Your task to perform on an android device: Open the stopwatch Image 0: 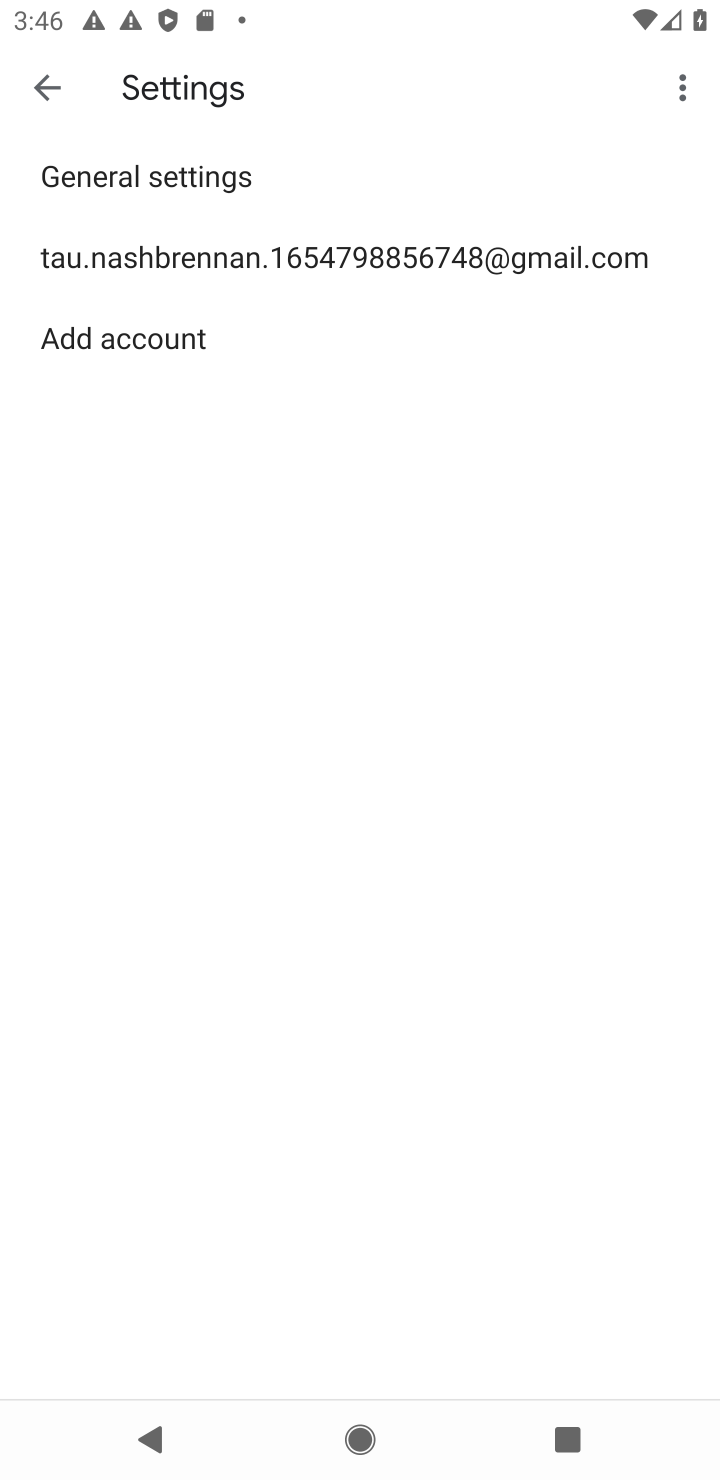
Step 0: press home button
Your task to perform on an android device: Open the stopwatch Image 1: 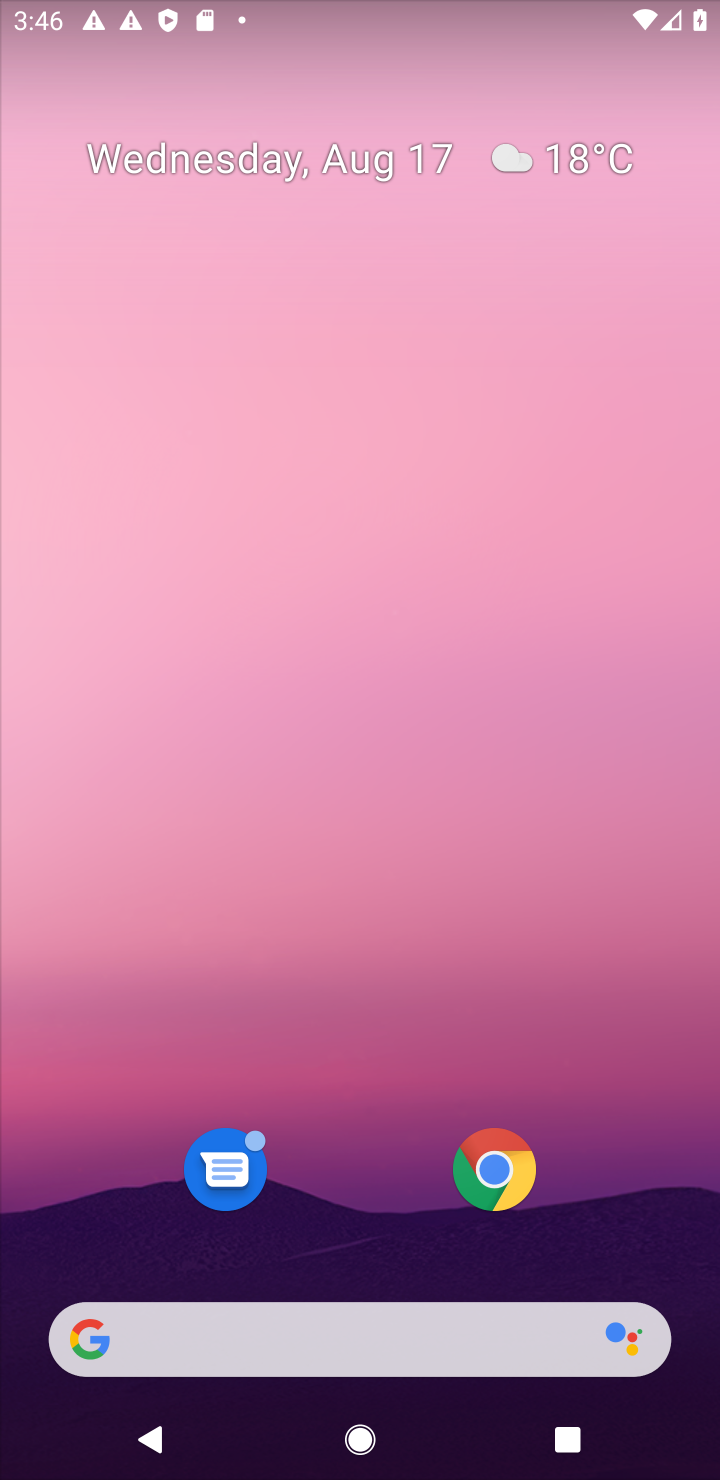
Step 1: drag from (608, 1181) to (719, 840)
Your task to perform on an android device: Open the stopwatch Image 2: 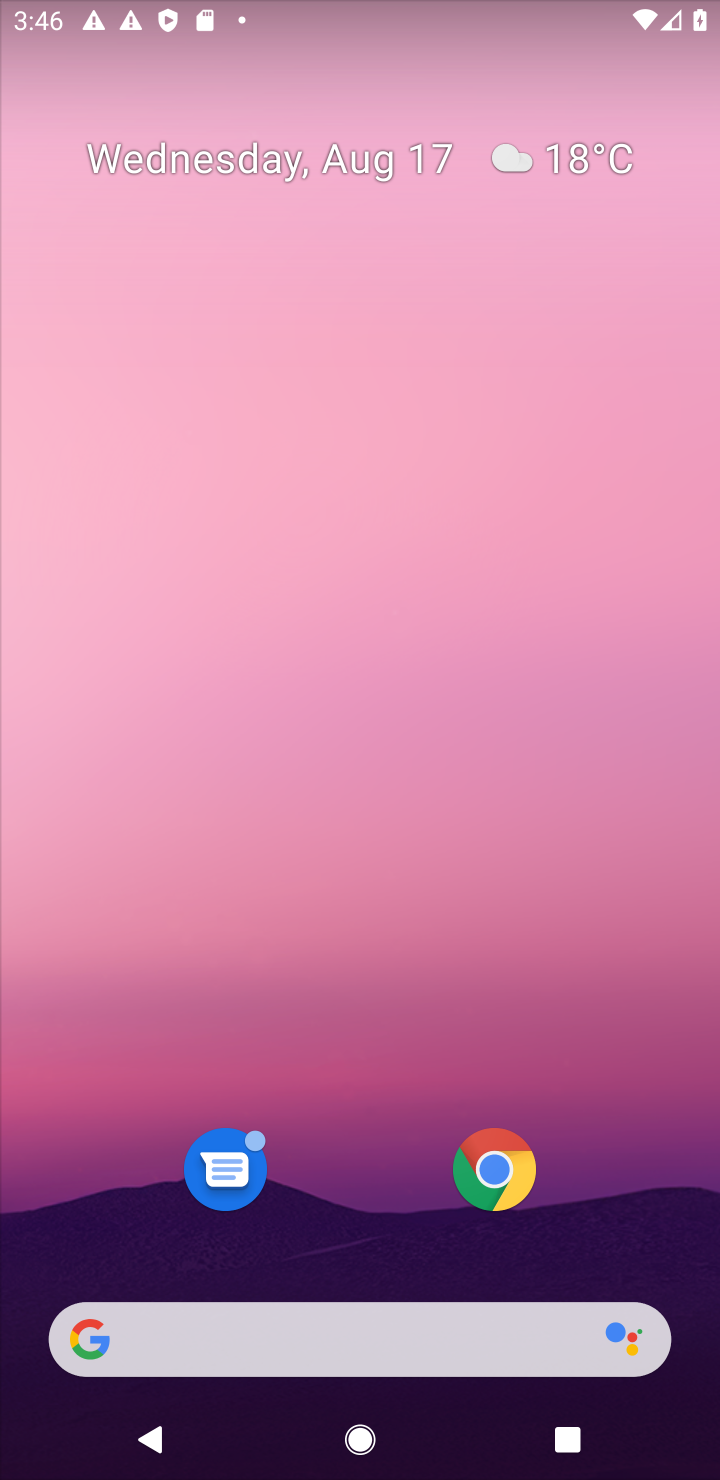
Step 2: drag from (414, 983) to (429, 80)
Your task to perform on an android device: Open the stopwatch Image 3: 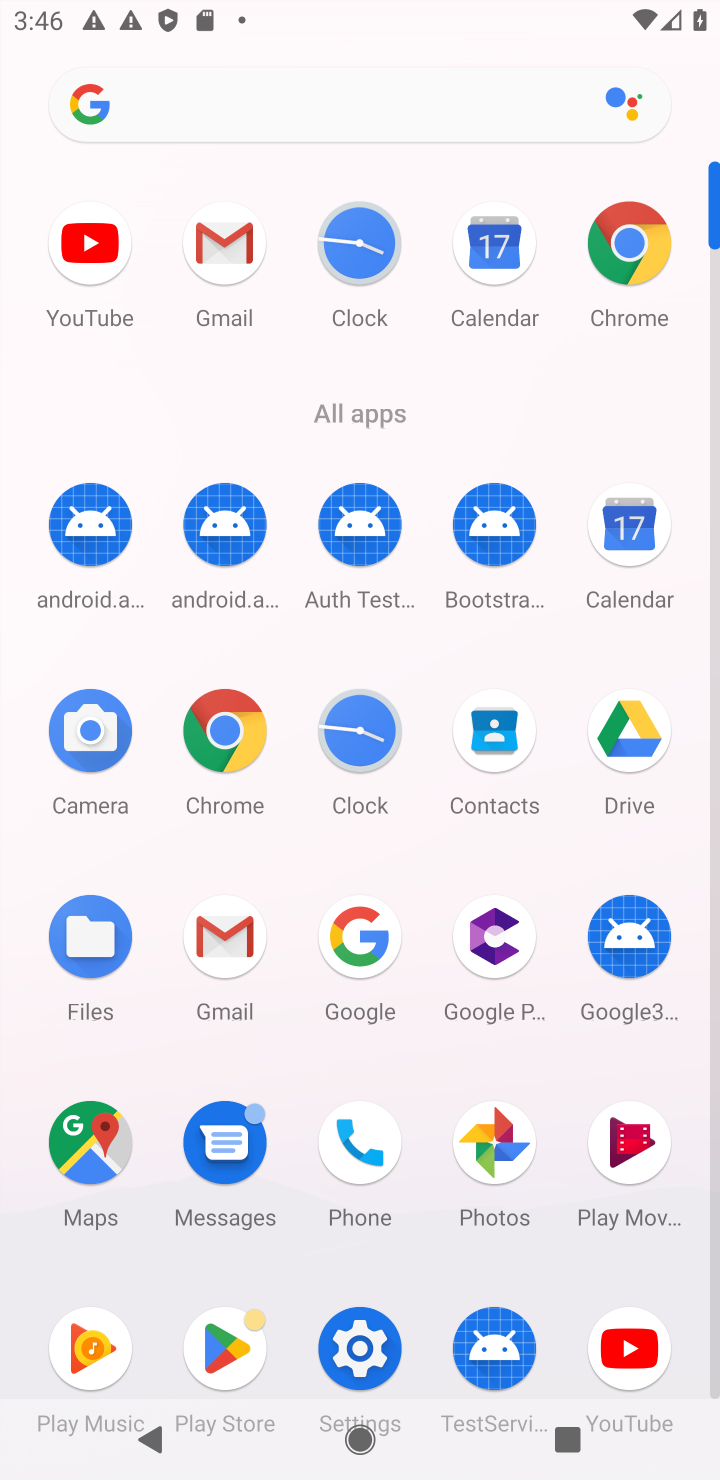
Step 3: click (345, 724)
Your task to perform on an android device: Open the stopwatch Image 4: 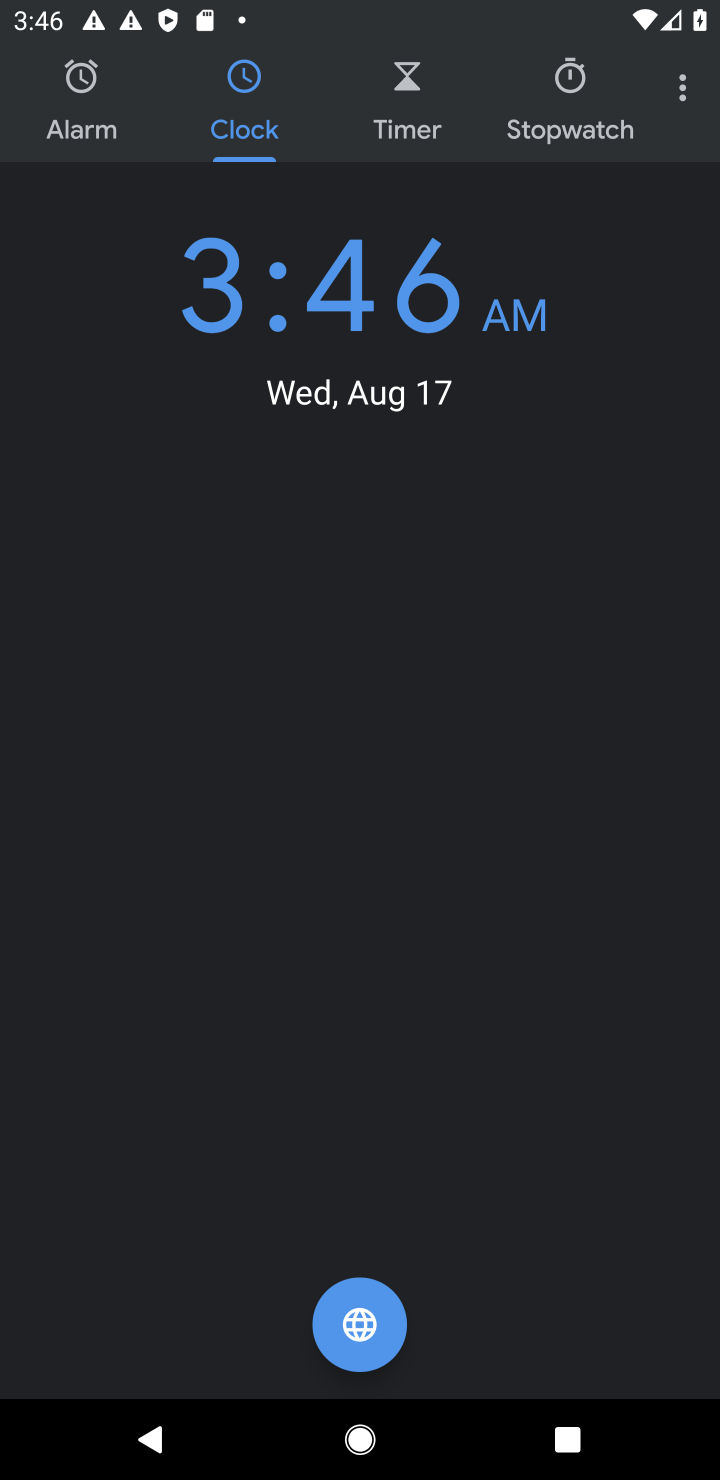
Step 4: click (570, 125)
Your task to perform on an android device: Open the stopwatch Image 5: 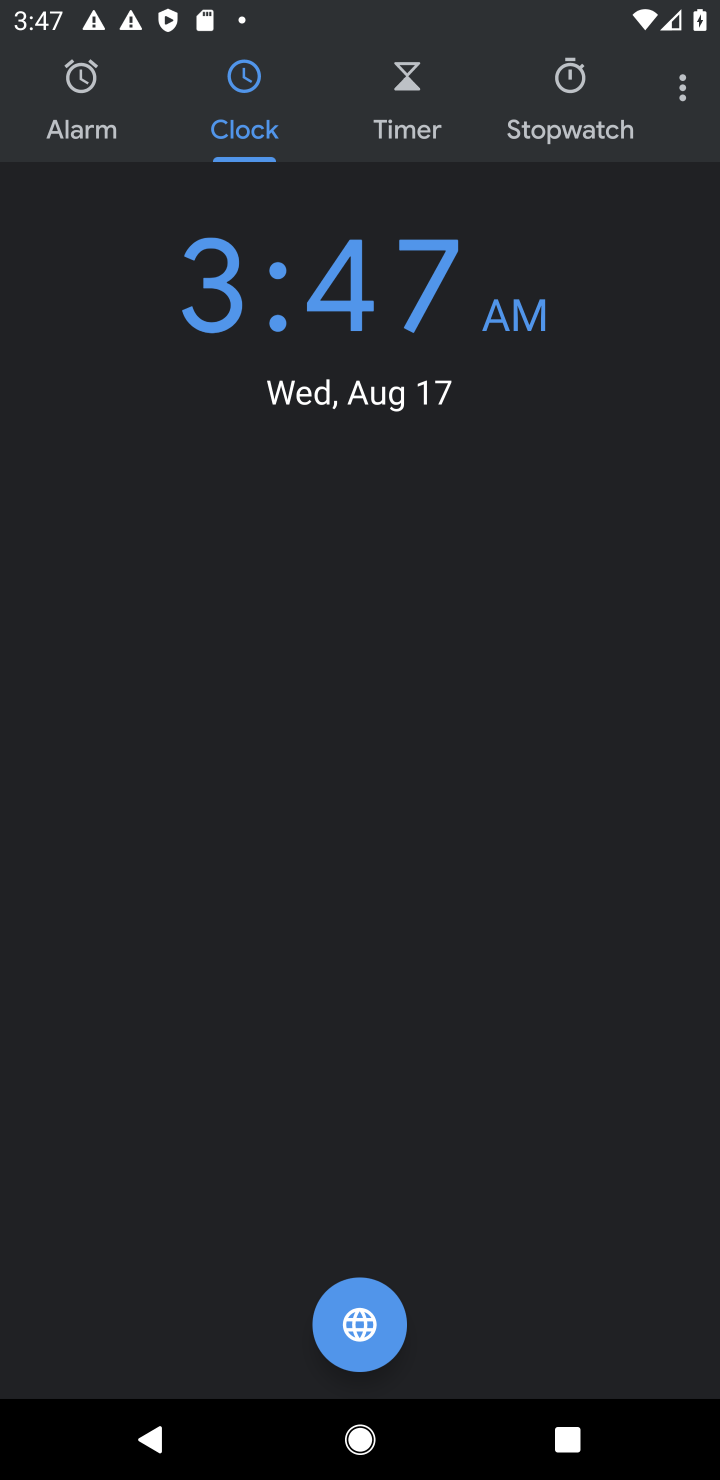
Step 5: click (603, 106)
Your task to perform on an android device: Open the stopwatch Image 6: 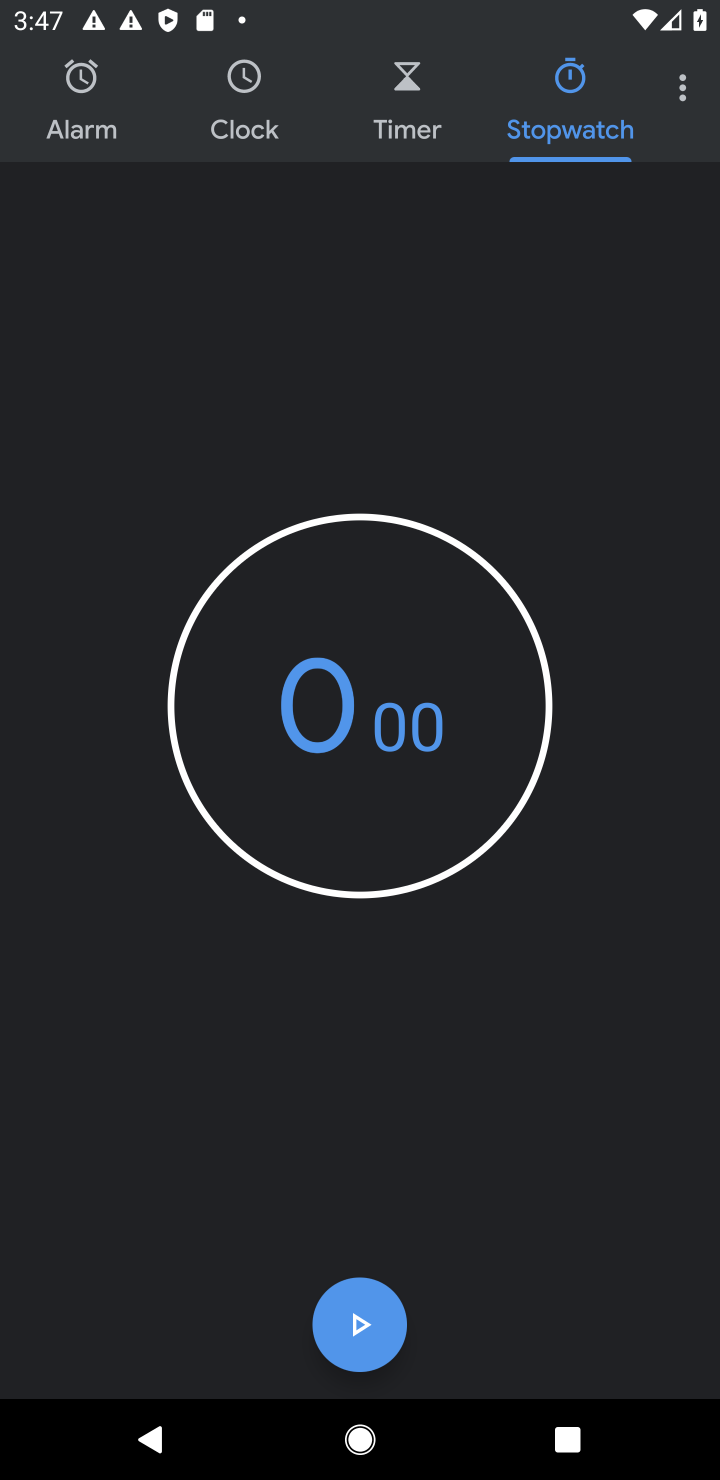
Step 6: task complete